Your task to perform on an android device: Go to display settings Image 0: 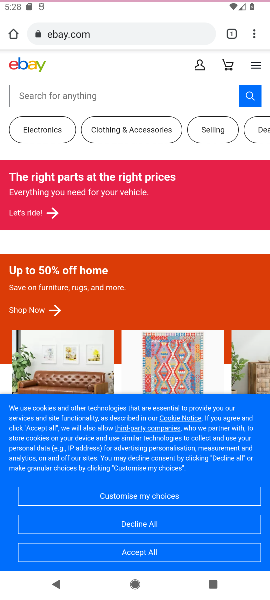
Step 0: press back button
Your task to perform on an android device: Go to display settings Image 1: 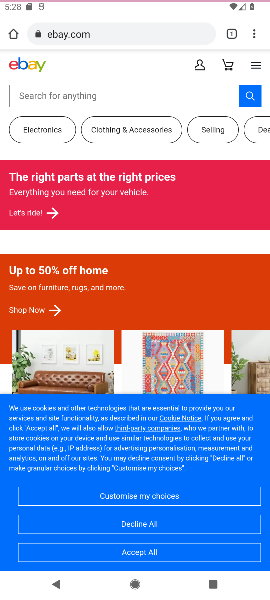
Step 1: press home button
Your task to perform on an android device: Go to display settings Image 2: 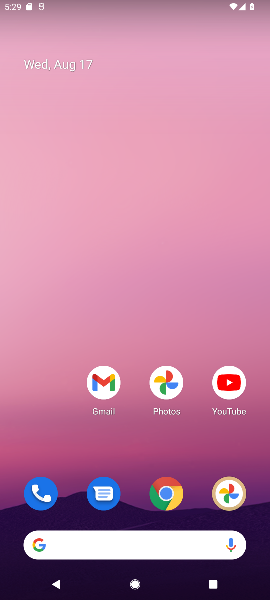
Step 2: drag from (131, 515) to (179, 87)
Your task to perform on an android device: Go to display settings Image 3: 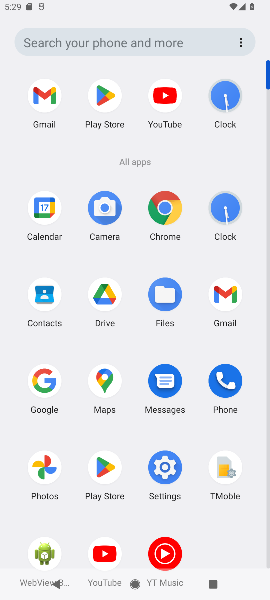
Step 3: click (164, 460)
Your task to perform on an android device: Go to display settings Image 4: 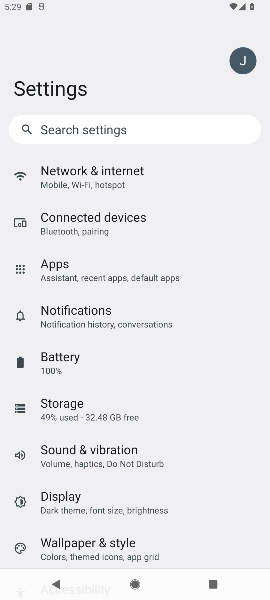
Step 4: click (53, 496)
Your task to perform on an android device: Go to display settings Image 5: 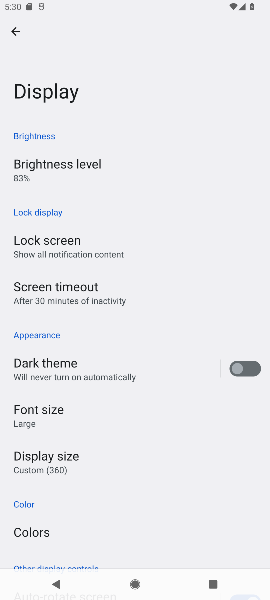
Step 5: task complete